Your task to perform on an android device: allow notifications from all sites in the chrome app Image 0: 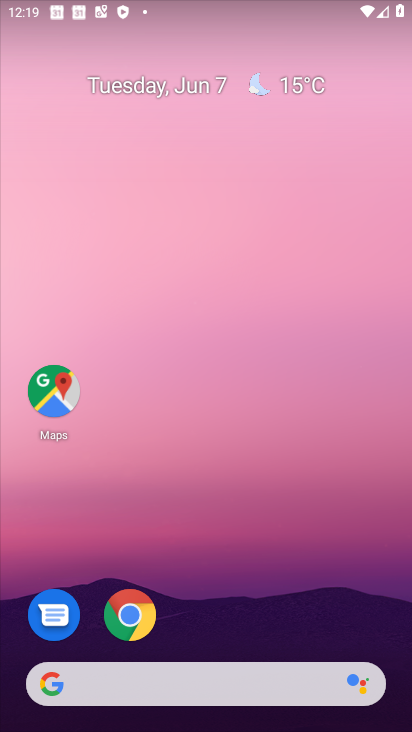
Step 0: click (195, 596)
Your task to perform on an android device: allow notifications from all sites in the chrome app Image 1: 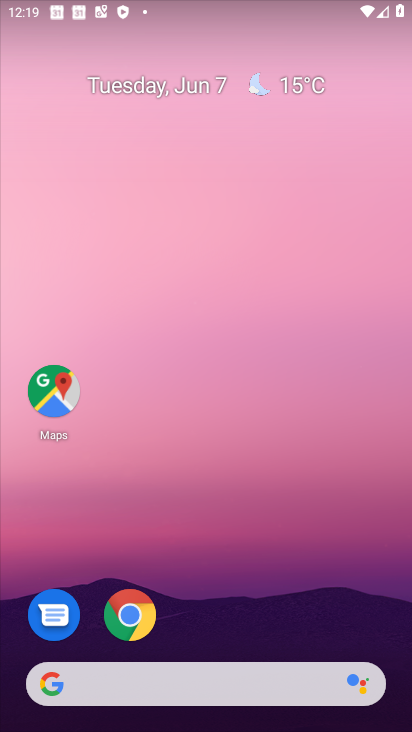
Step 1: click (134, 622)
Your task to perform on an android device: allow notifications from all sites in the chrome app Image 2: 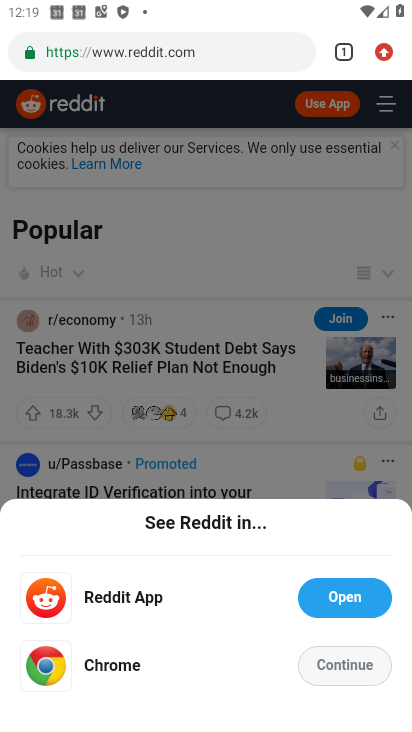
Step 2: click (350, 679)
Your task to perform on an android device: allow notifications from all sites in the chrome app Image 3: 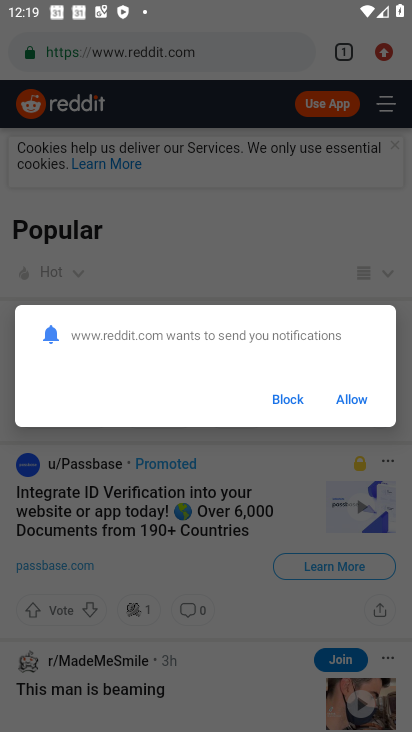
Step 3: click (298, 389)
Your task to perform on an android device: allow notifications from all sites in the chrome app Image 4: 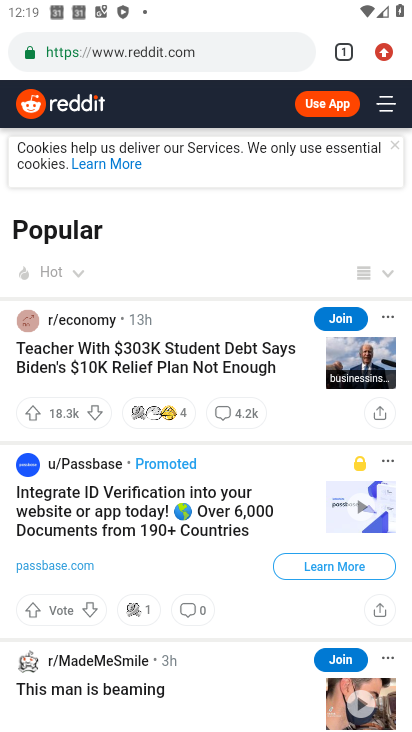
Step 4: click (385, 59)
Your task to perform on an android device: allow notifications from all sites in the chrome app Image 5: 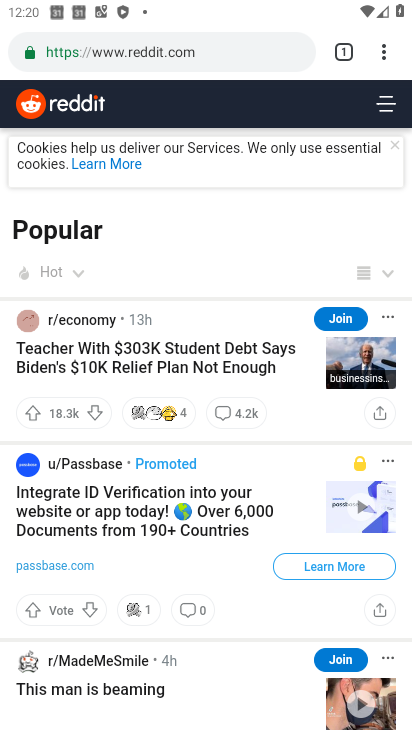
Step 5: click (370, 66)
Your task to perform on an android device: allow notifications from all sites in the chrome app Image 6: 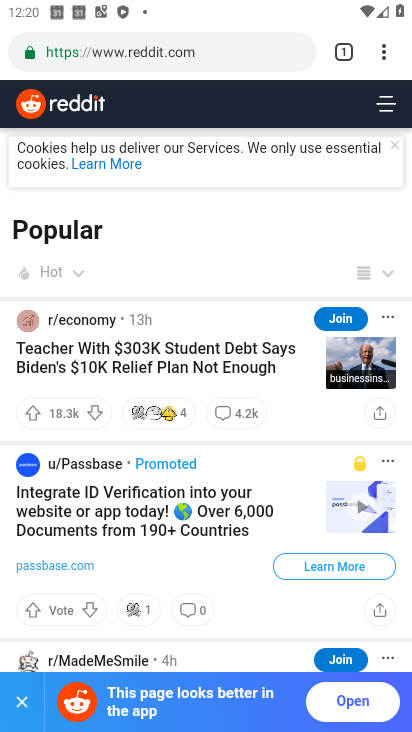
Step 6: click (381, 56)
Your task to perform on an android device: allow notifications from all sites in the chrome app Image 7: 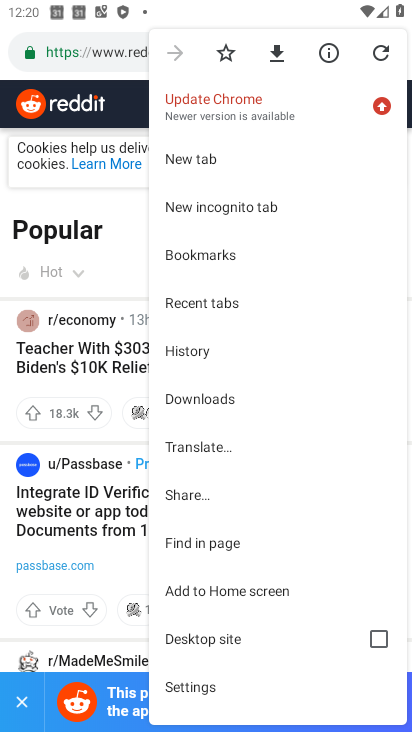
Step 7: click (205, 679)
Your task to perform on an android device: allow notifications from all sites in the chrome app Image 8: 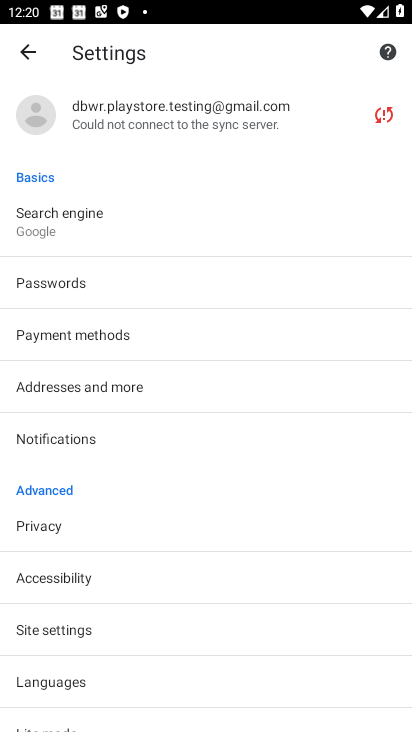
Step 8: click (74, 438)
Your task to perform on an android device: allow notifications from all sites in the chrome app Image 9: 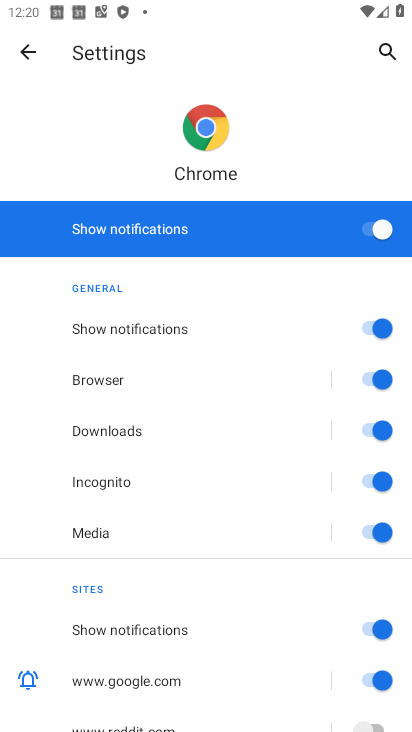
Step 9: task complete